Your task to perform on an android device: turn on improve location accuracy Image 0: 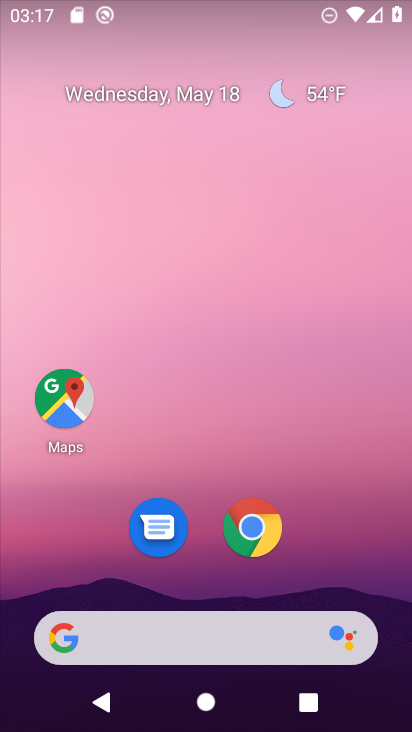
Step 0: drag from (220, 596) to (148, 35)
Your task to perform on an android device: turn on improve location accuracy Image 1: 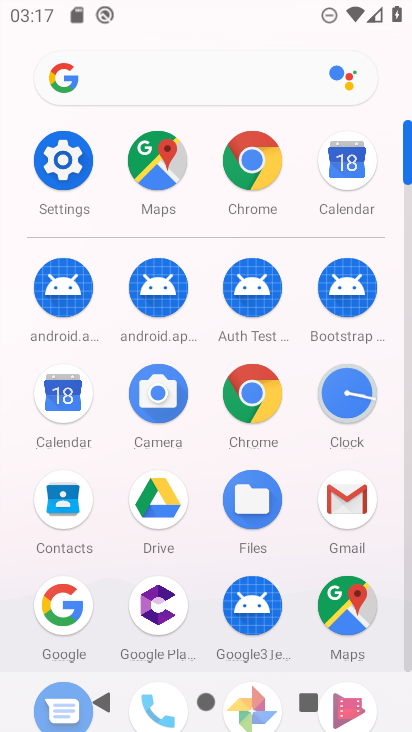
Step 1: click (54, 180)
Your task to perform on an android device: turn on improve location accuracy Image 2: 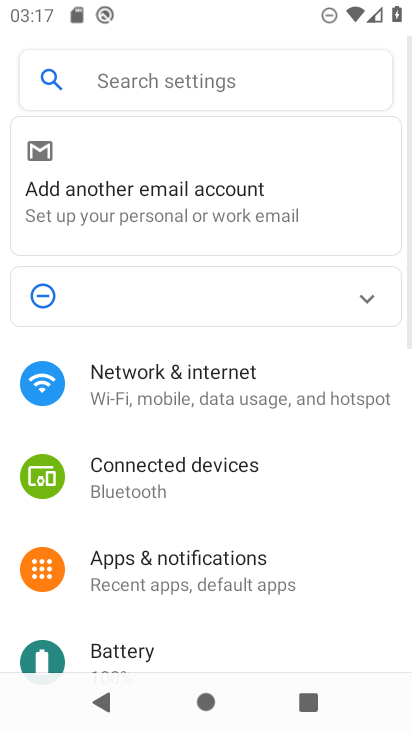
Step 2: drag from (138, 572) to (79, 170)
Your task to perform on an android device: turn on improve location accuracy Image 3: 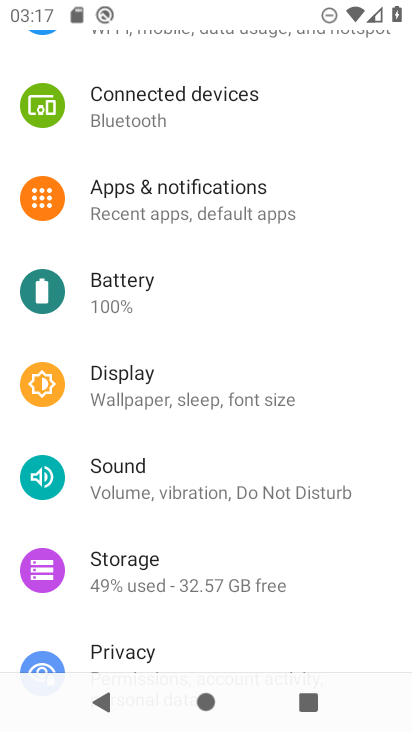
Step 3: drag from (128, 562) to (82, 166)
Your task to perform on an android device: turn on improve location accuracy Image 4: 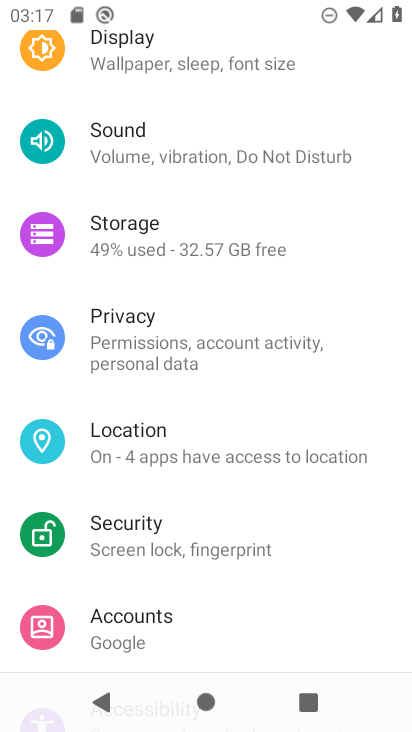
Step 4: click (139, 441)
Your task to perform on an android device: turn on improve location accuracy Image 5: 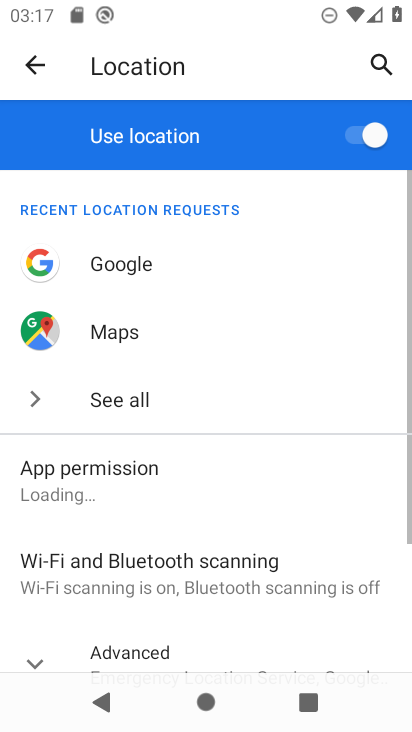
Step 5: drag from (158, 553) to (126, 127)
Your task to perform on an android device: turn on improve location accuracy Image 6: 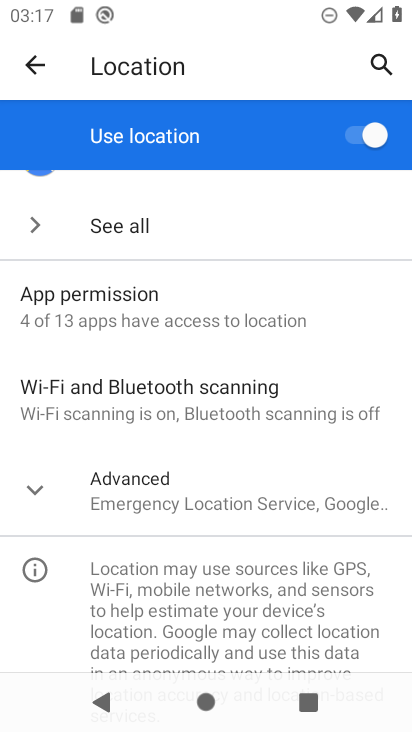
Step 6: click (144, 482)
Your task to perform on an android device: turn on improve location accuracy Image 7: 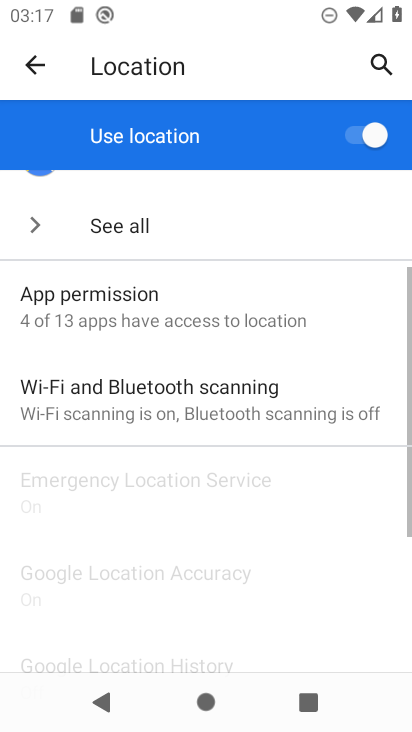
Step 7: drag from (153, 497) to (129, 192)
Your task to perform on an android device: turn on improve location accuracy Image 8: 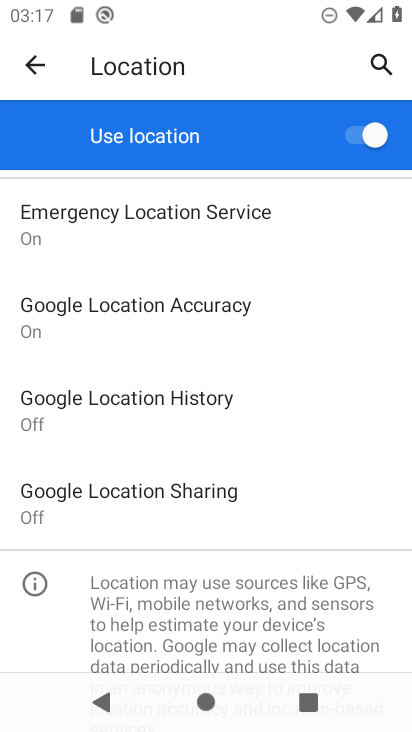
Step 8: click (161, 312)
Your task to perform on an android device: turn on improve location accuracy Image 9: 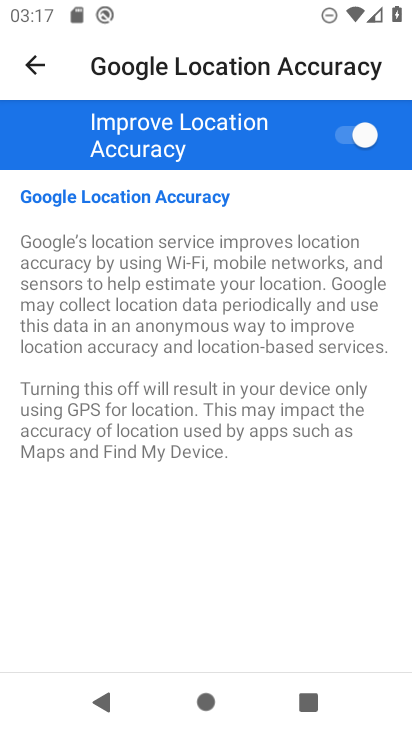
Step 9: task complete